Your task to perform on an android device: Is it going to rain today? Image 0: 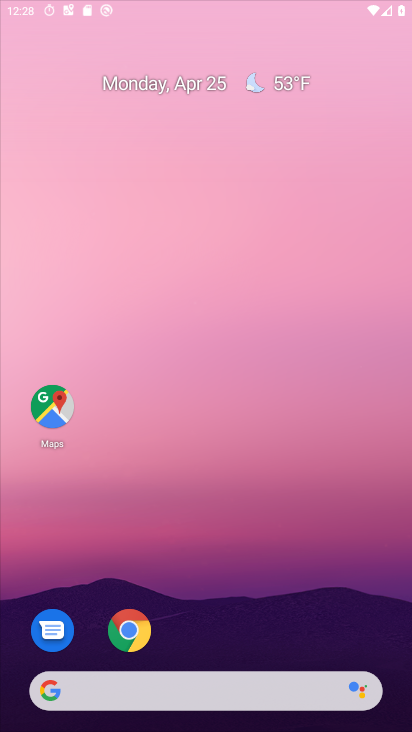
Step 0: click (154, 40)
Your task to perform on an android device: Is it going to rain today? Image 1: 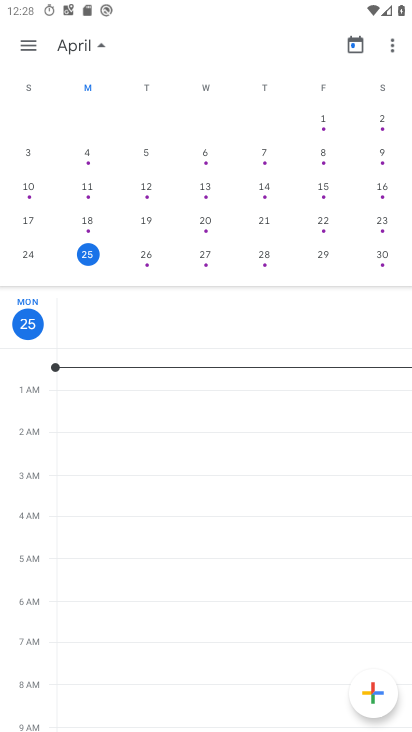
Step 1: press home button
Your task to perform on an android device: Is it going to rain today? Image 2: 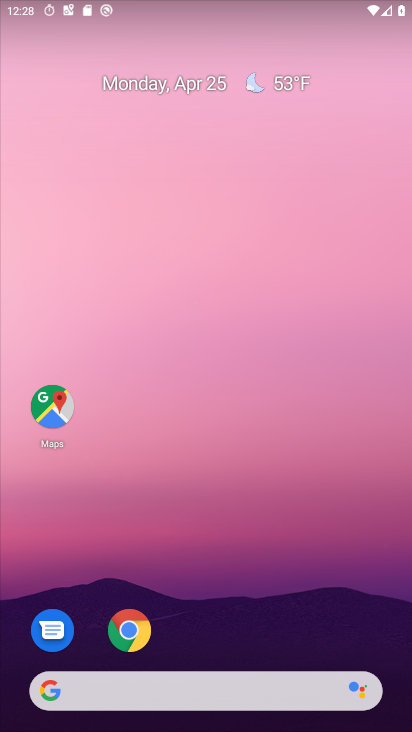
Step 2: drag from (186, 639) to (120, 133)
Your task to perform on an android device: Is it going to rain today? Image 3: 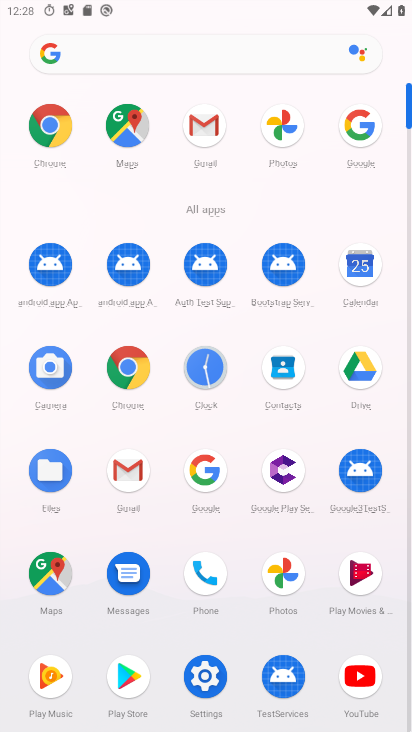
Step 3: click (210, 467)
Your task to perform on an android device: Is it going to rain today? Image 4: 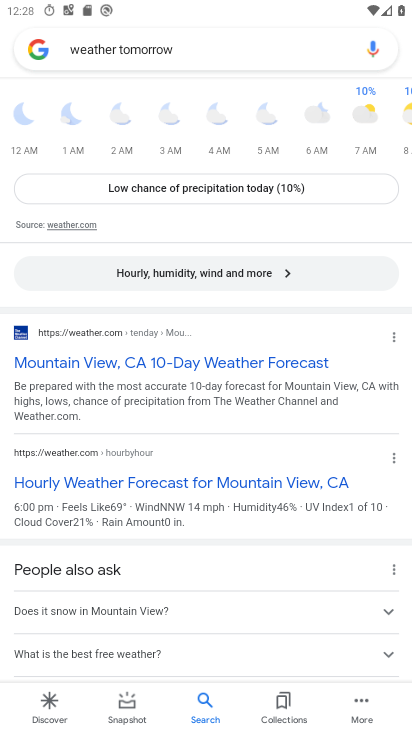
Step 4: click (216, 40)
Your task to perform on an android device: Is it going to rain today? Image 5: 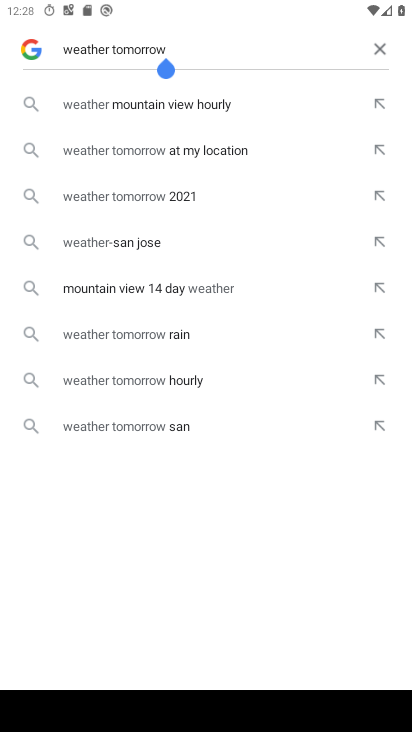
Step 5: click (378, 40)
Your task to perform on an android device: Is it going to rain today? Image 6: 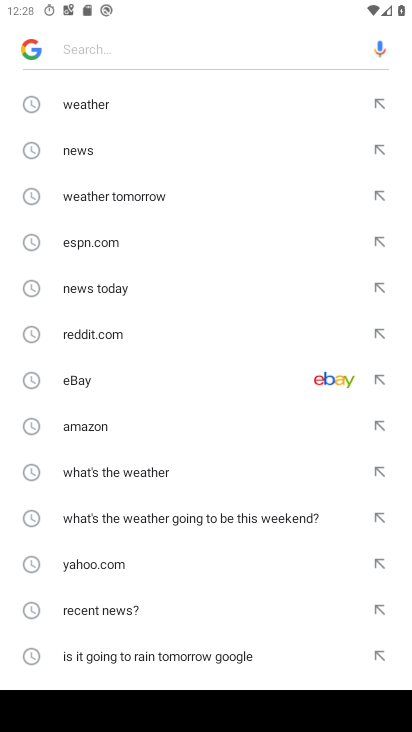
Step 6: drag from (200, 595) to (146, 217)
Your task to perform on an android device: Is it going to rain today? Image 7: 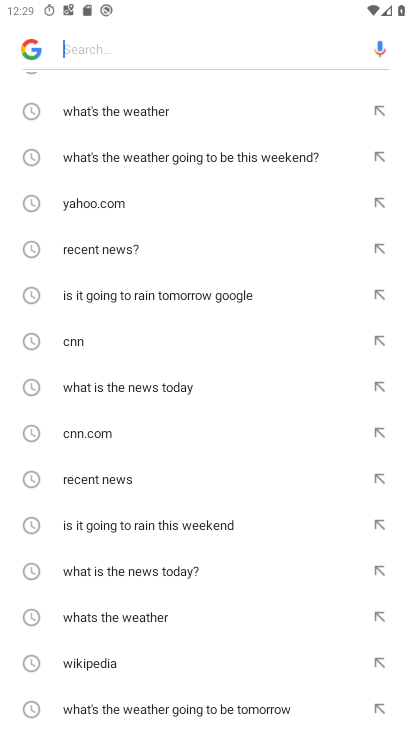
Step 7: drag from (218, 585) to (235, 312)
Your task to perform on an android device: Is it going to rain today? Image 8: 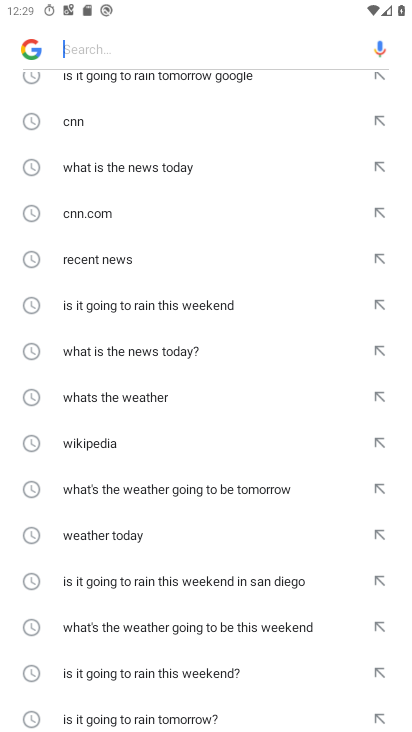
Step 8: drag from (202, 694) to (233, 281)
Your task to perform on an android device: Is it going to rain today? Image 9: 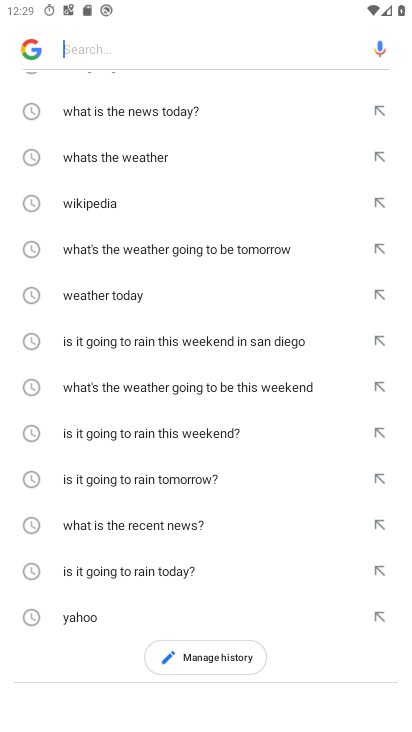
Step 9: click (195, 572)
Your task to perform on an android device: Is it going to rain today? Image 10: 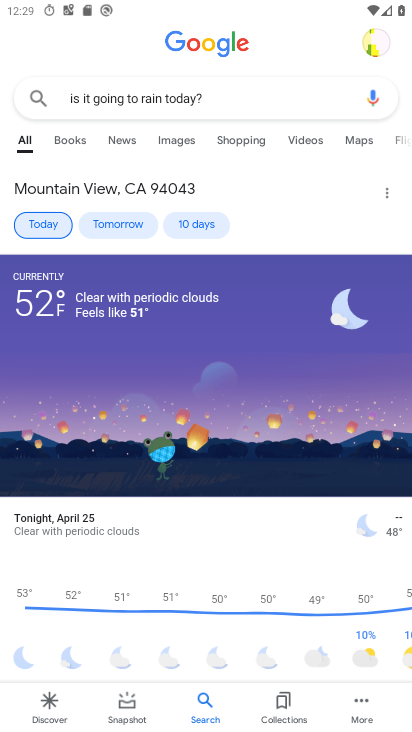
Step 10: task complete